Your task to perform on an android device: Go to Wikipedia Image 0: 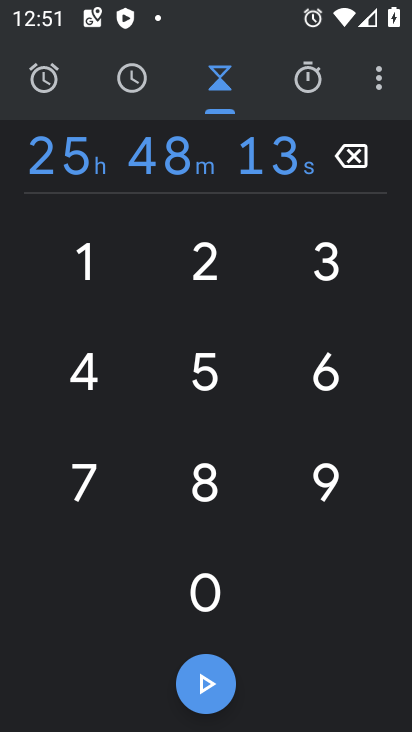
Step 0: press home button
Your task to perform on an android device: Go to Wikipedia Image 1: 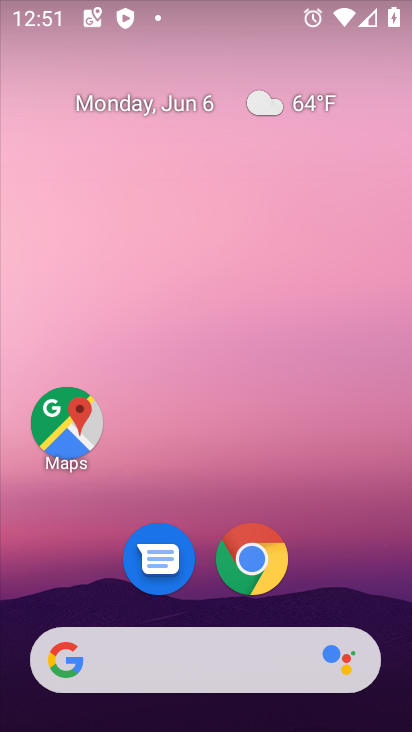
Step 1: drag from (272, 681) to (228, 284)
Your task to perform on an android device: Go to Wikipedia Image 2: 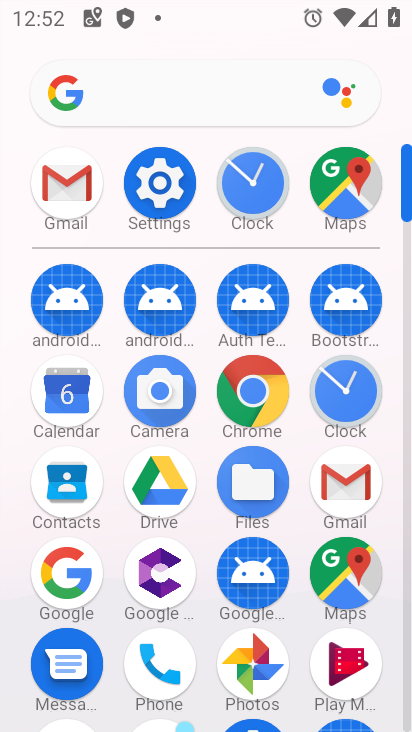
Step 2: click (256, 401)
Your task to perform on an android device: Go to Wikipedia Image 3: 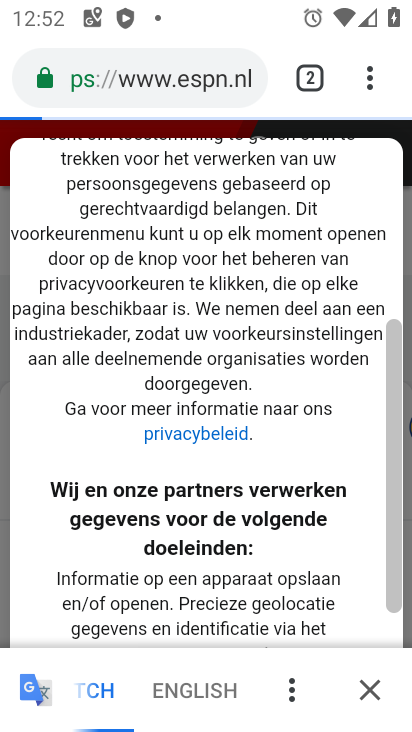
Step 3: drag from (224, 504) to (227, 229)
Your task to perform on an android device: Go to Wikipedia Image 4: 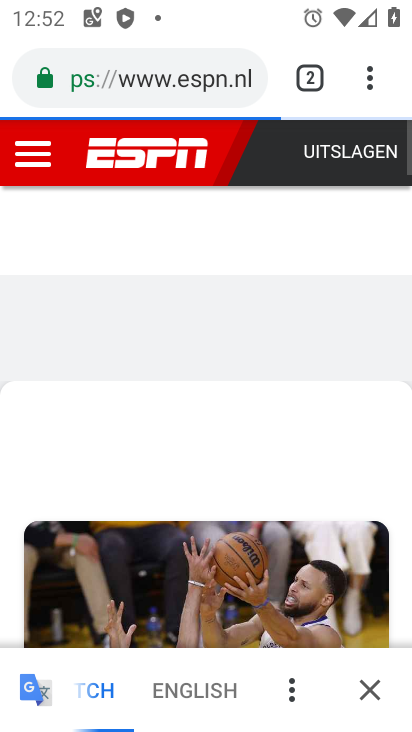
Step 4: click (182, 617)
Your task to perform on an android device: Go to Wikipedia Image 5: 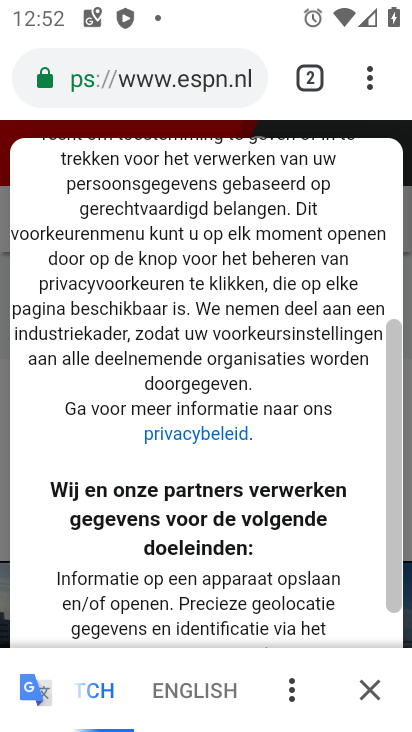
Step 5: click (301, 89)
Your task to perform on an android device: Go to Wikipedia Image 6: 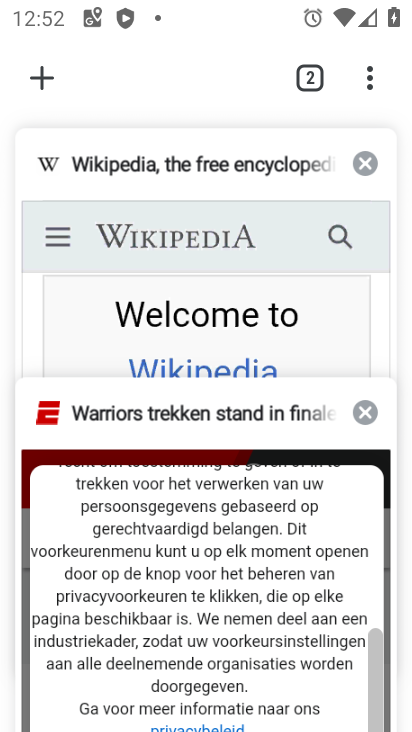
Step 6: click (49, 67)
Your task to perform on an android device: Go to Wikipedia Image 7: 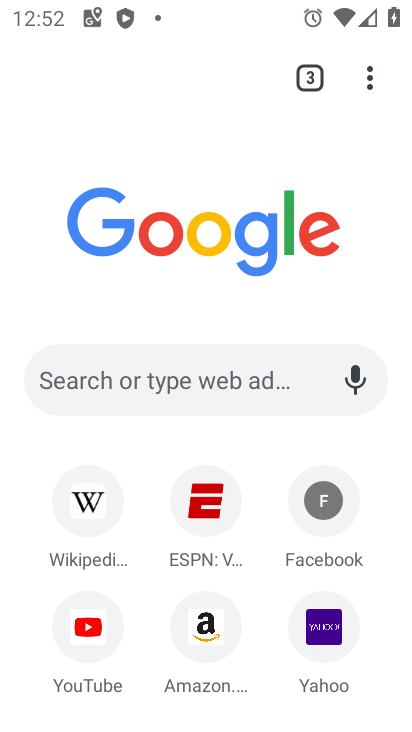
Step 7: click (83, 511)
Your task to perform on an android device: Go to Wikipedia Image 8: 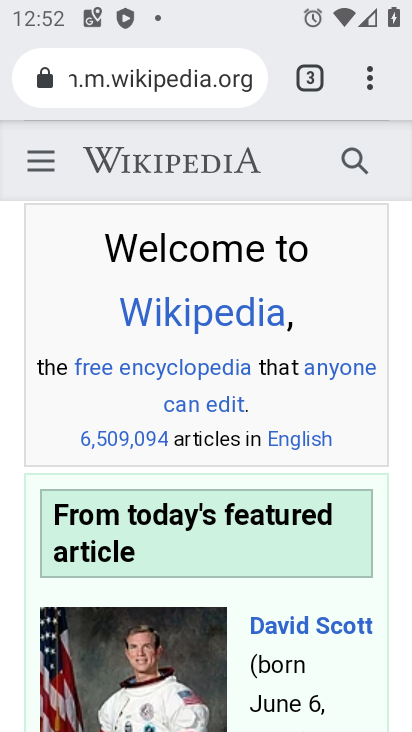
Step 8: task complete